Your task to perform on an android device: Is it going to rain tomorrow? Image 0: 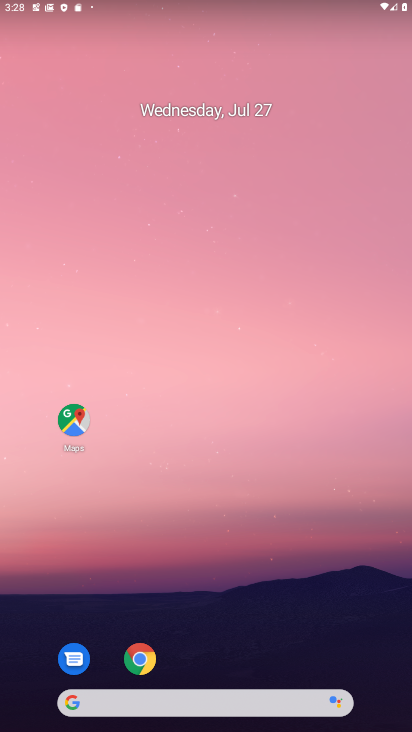
Step 0: drag from (205, 635) to (197, 241)
Your task to perform on an android device: Is it going to rain tomorrow? Image 1: 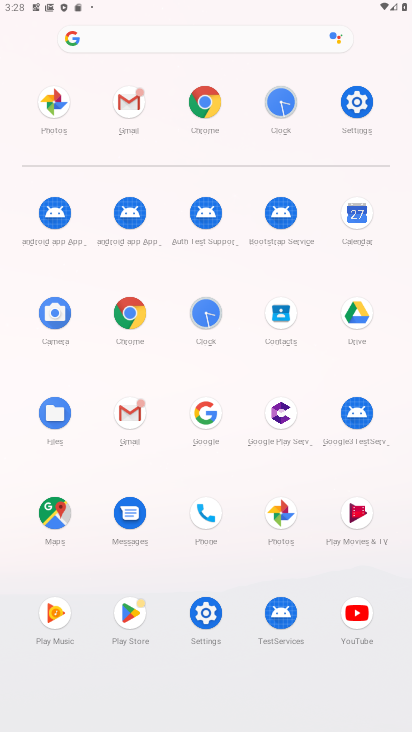
Step 1: click (204, 410)
Your task to perform on an android device: Is it going to rain tomorrow? Image 2: 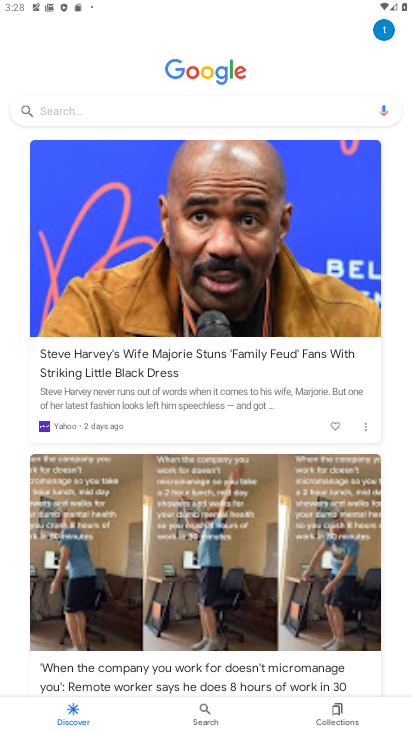
Step 2: click (127, 111)
Your task to perform on an android device: Is it going to rain tomorrow? Image 3: 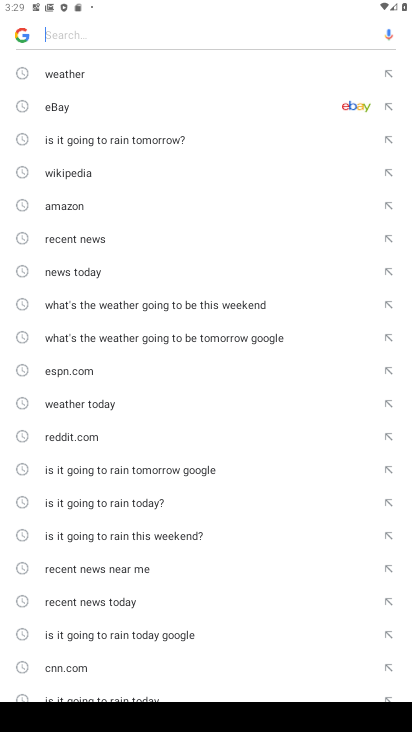
Step 3: click (81, 143)
Your task to perform on an android device: Is it going to rain tomorrow? Image 4: 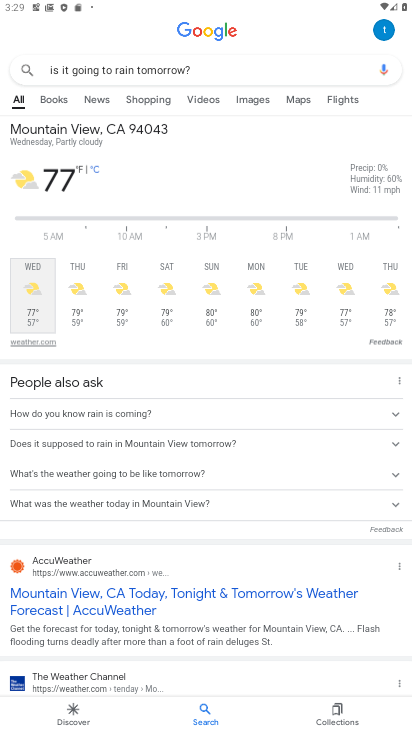
Step 4: task complete